Your task to perform on an android device: Go to notification settings Image 0: 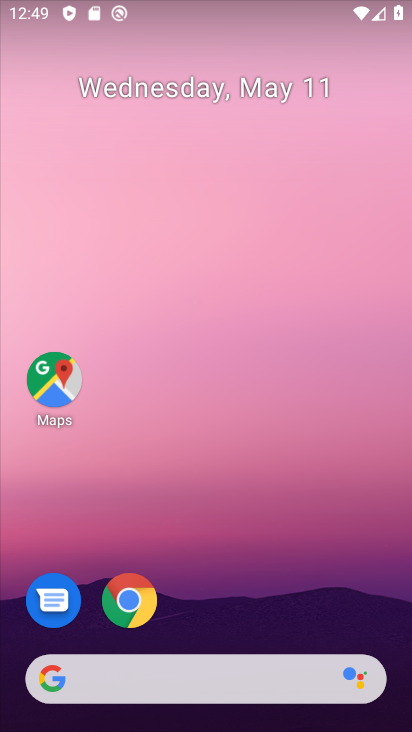
Step 0: drag from (240, 610) to (302, 278)
Your task to perform on an android device: Go to notification settings Image 1: 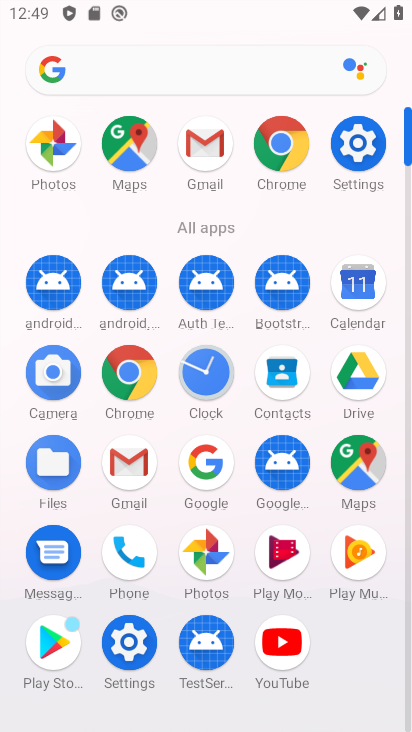
Step 1: click (345, 125)
Your task to perform on an android device: Go to notification settings Image 2: 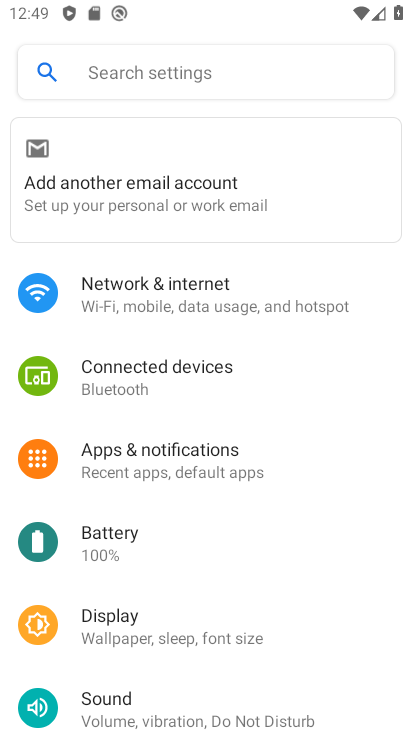
Step 2: click (199, 453)
Your task to perform on an android device: Go to notification settings Image 3: 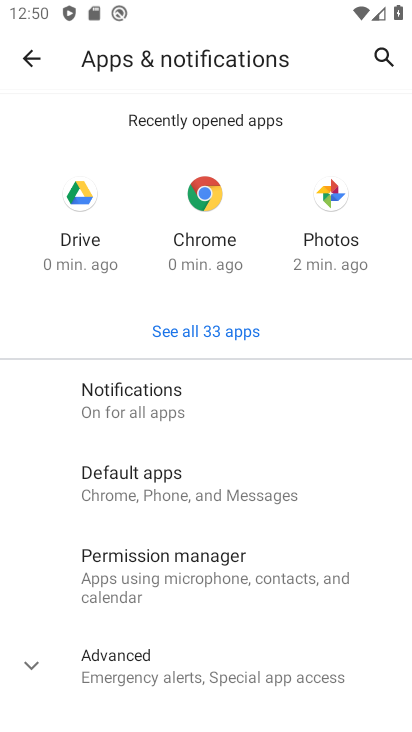
Step 3: click (174, 384)
Your task to perform on an android device: Go to notification settings Image 4: 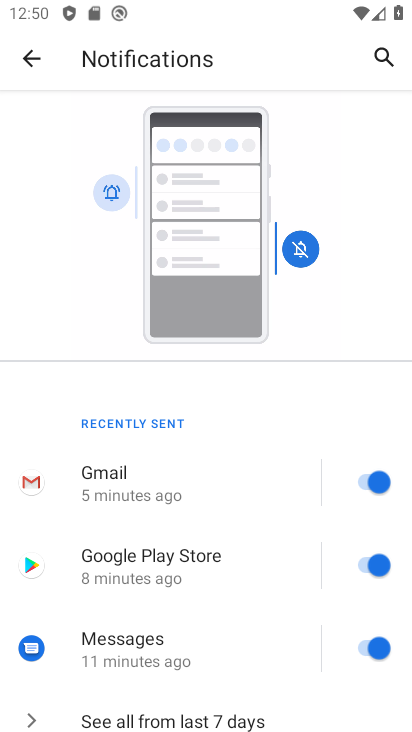
Step 4: task complete